Your task to perform on an android device: remove spam from my inbox in the gmail app Image 0: 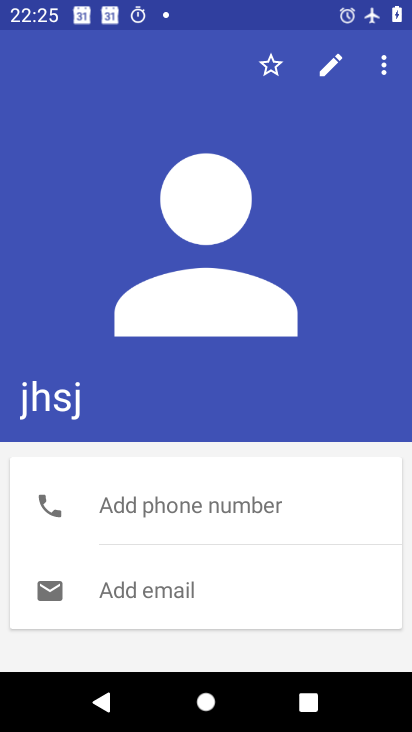
Step 0: press home button
Your task to perform on an android device: remove spam from my inbox in the gmail app Image 1: 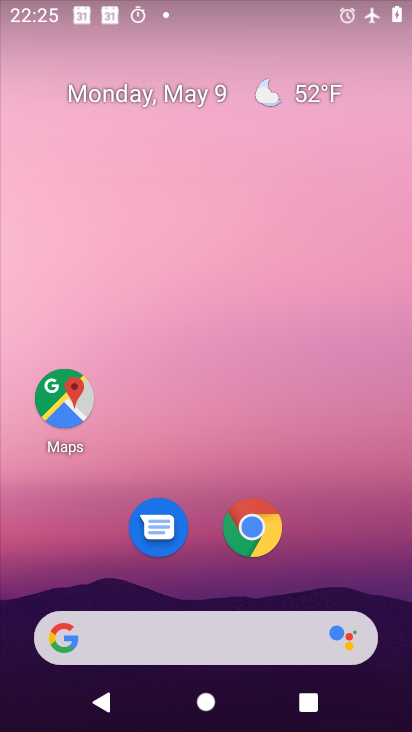
Step 1: drag from (205, 564) to (196, 104)
Your task to perform on an android device: remove spam from my inbox in the gmail app Image 2: 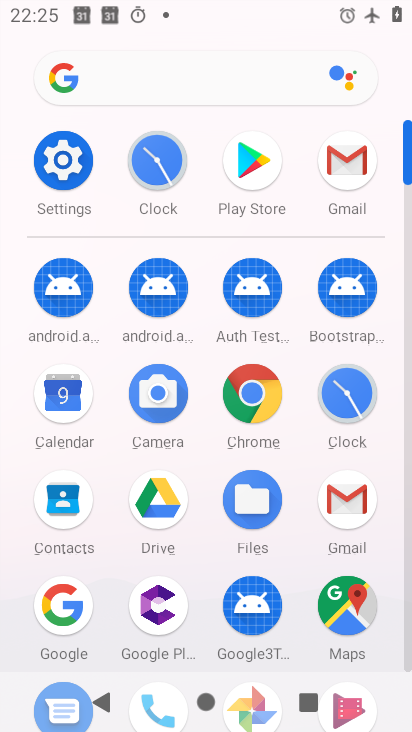
Step 2: click (342, 158)
Your task to perform on an android device: remove spam from my inbox in the gmail app Image 3: 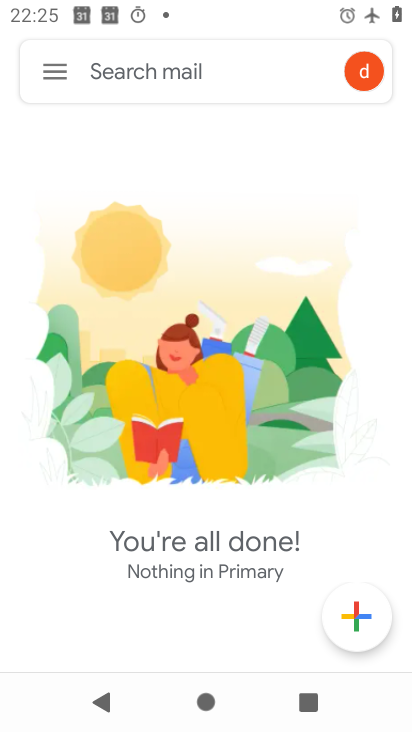
Step 3: click (53, 67)
Your task to perform on an android device: remove spam from my inbox in the gmail app Image 4: 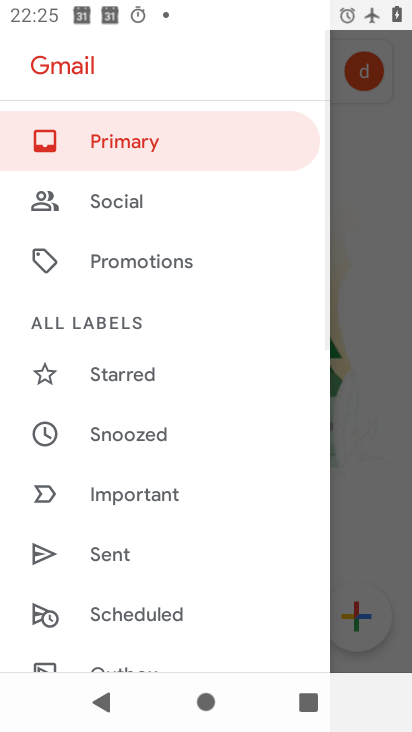
Step 4: task complete